Your task to perform on an android device: toggle translation in the chrome app Image 0: 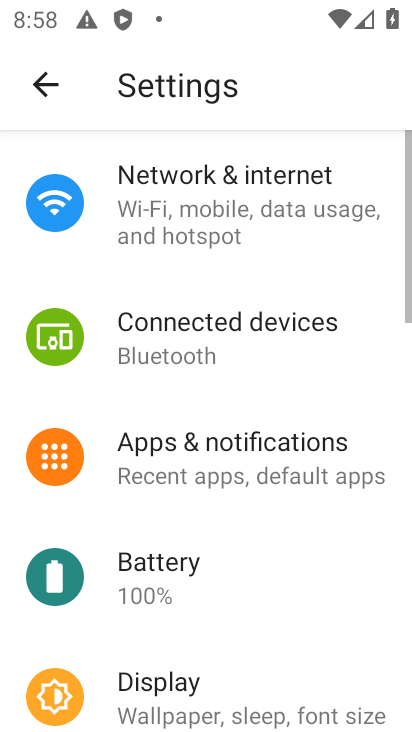
Step 0: press home button
Your task to perform on an android device: toggle translation in the chrome app Image 1: 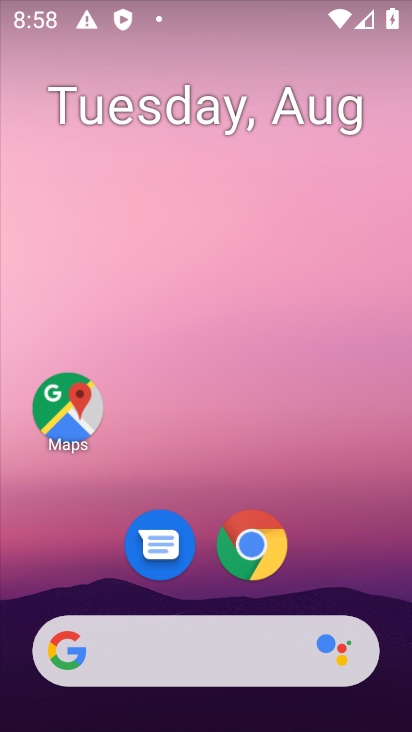
Step 1: drag from (85, 363) to (203, 92)
Your task to perform on an android device: toggle translation in the chrome app Image 2: 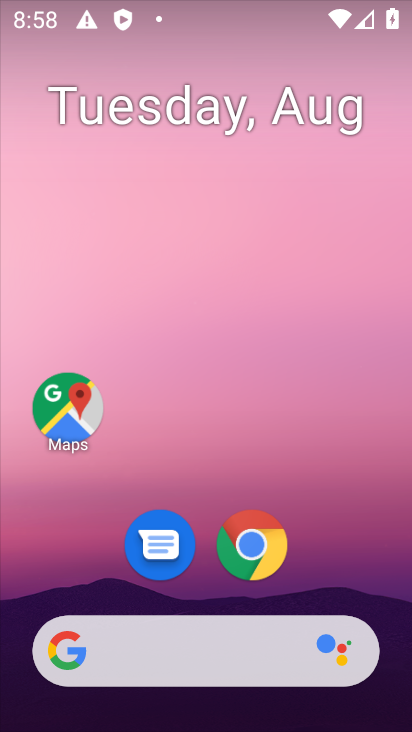
Step 2: click (236, 549)
Your task to perform on an android device: toggle translation in the chrome app Image 3: 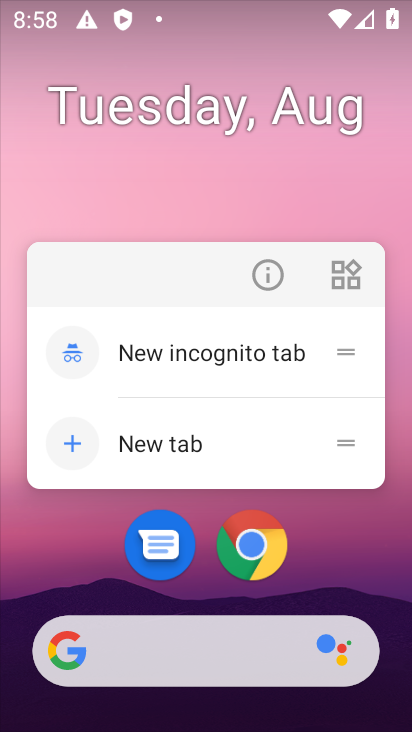
Step 3: click (238, 543)
Your task to perform on an android device: toggle translation in the chrome app Image 4: 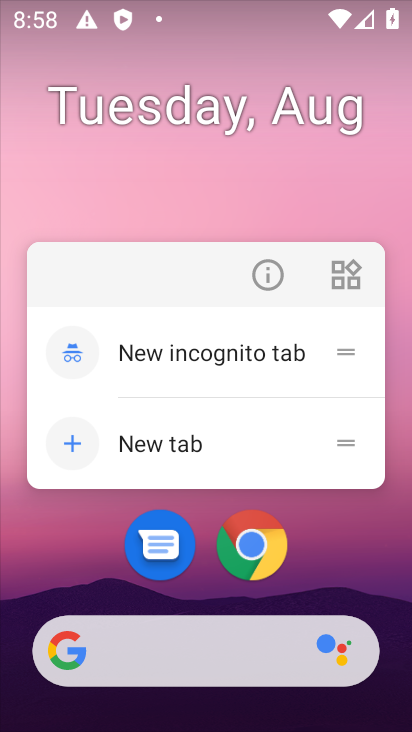
Step 4: click (247, 545)
Your task to perform on an android device: toggle translation in the chrome app Image 5: 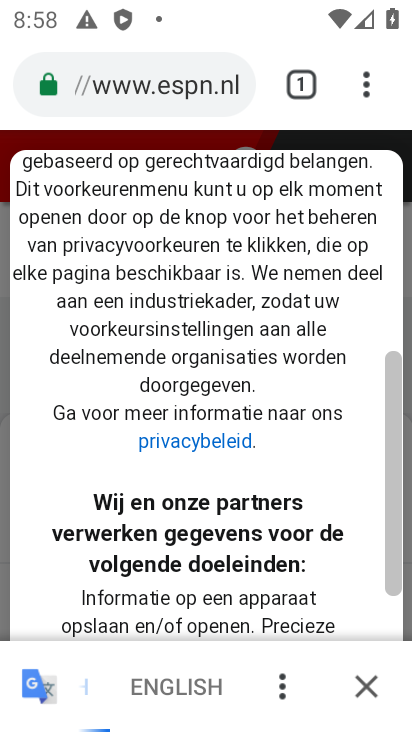
Step 5: click (367, 686)
Your task to perform on an android device: toggle translation in the chrome app Image 6: 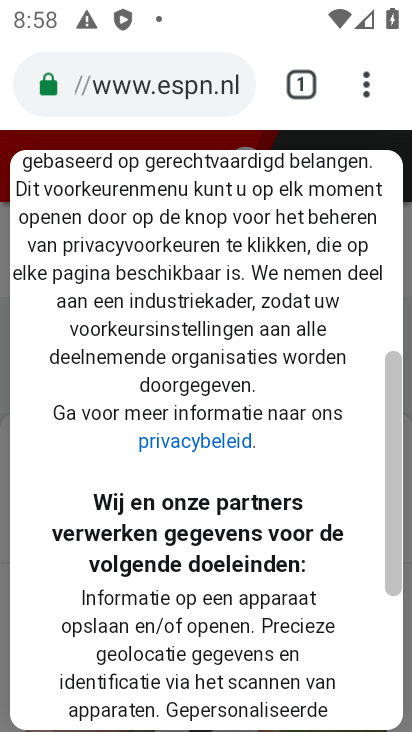
Step 6: click (366, 84)
Your task to perform on an android device: toggle translation in the chrome app Image 7: 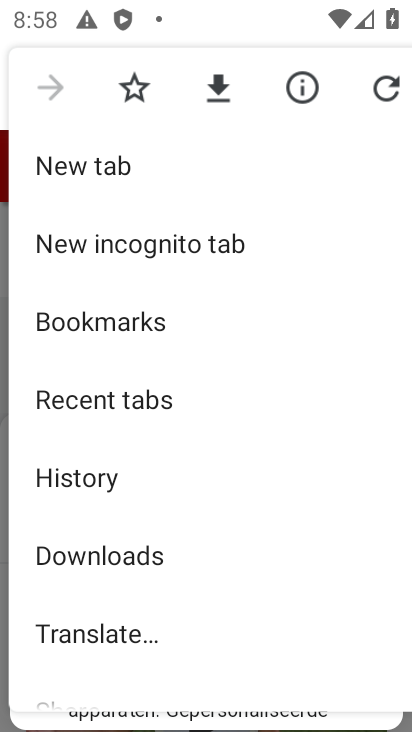
Step 7: drag from (11, 659) to (207, 215)
Your task to perform on an android device: toggle translation in the chrome app Image 8: 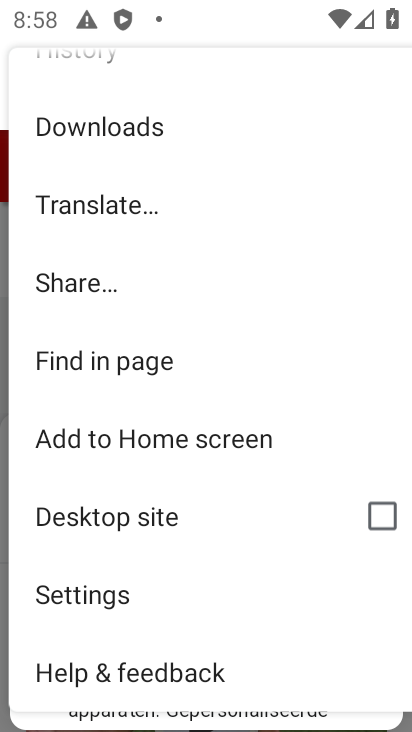
Step 8: click (108, 592)
Your task to perform on an android device: toggle translation in the chrome app Image 9: 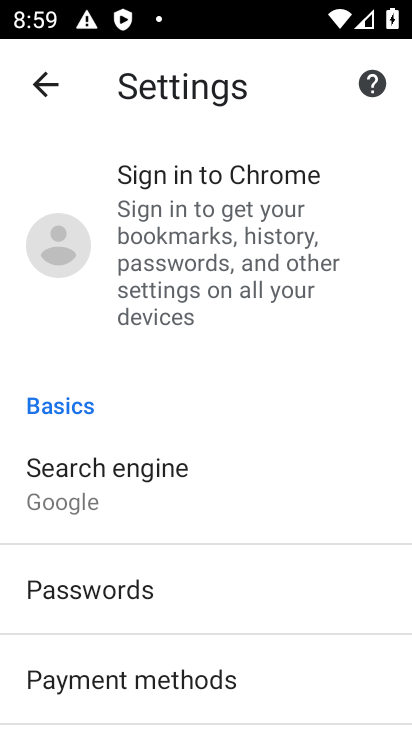
Step 9: drag from (18, 693) to (232, 159)
Your task to perform on an android device: toggle translation in the chrome app Image 10: 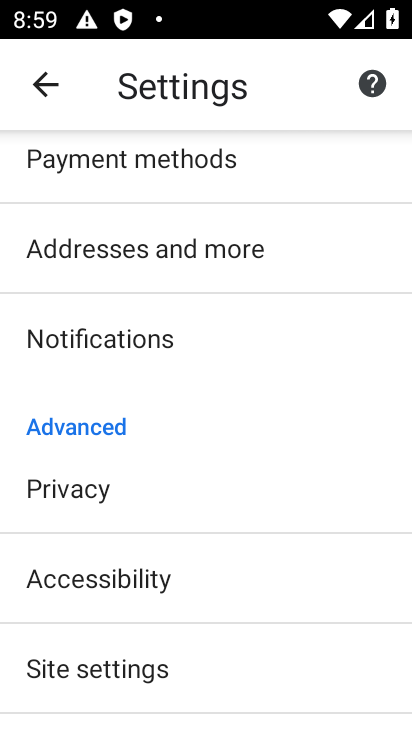
Step 10: drag from (13, 592) to (174, 218)
Your task to perform on an android device: toggle translation in the chrome app Image 11: 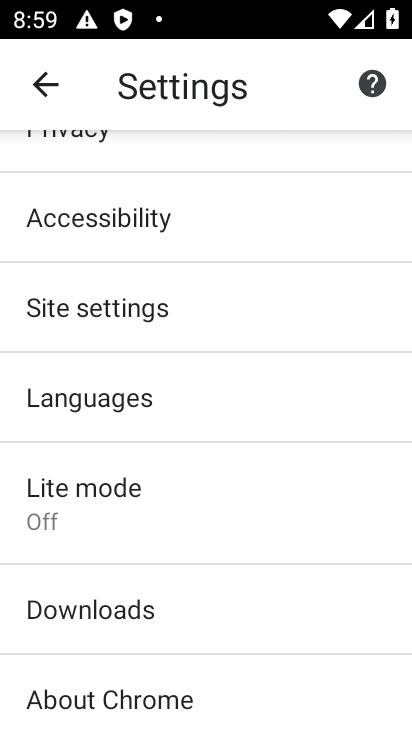
Step 11: drag from (143, 170) to (107, 716)
Your task to perform on an android device: toggle translation in the chrome app Image 12: 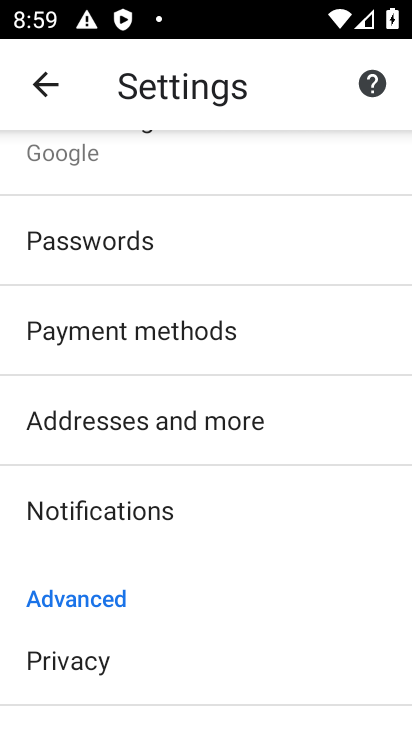
Step 12: drag from (215, 179) to (231, 622)
Your task to perform on an android device: toggle translation in the chrome app Image 13: 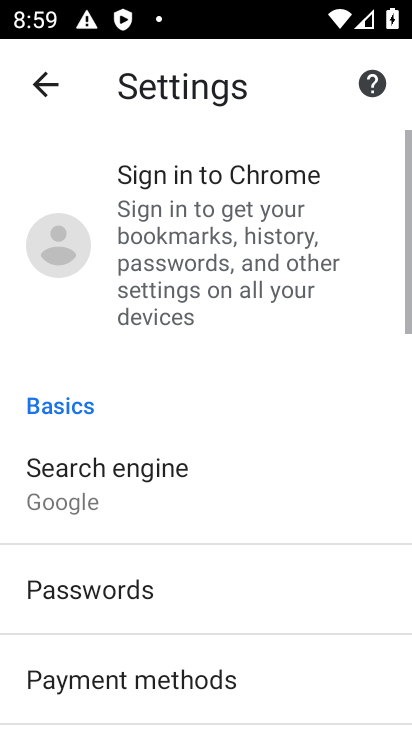
Step 13: drag from (2, 610) to (266, 107)
Your task to perform on an android device: toggle translation in the chrome app Image 14: 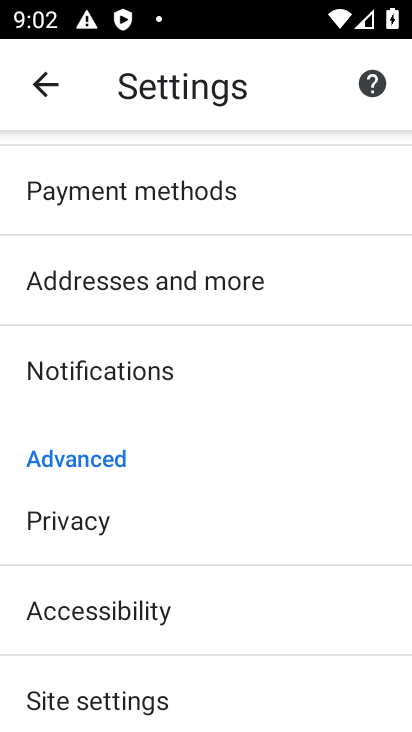
Step 14: press home button
Your task to perform on an android device: toggle translation in the chrome app Image 15: 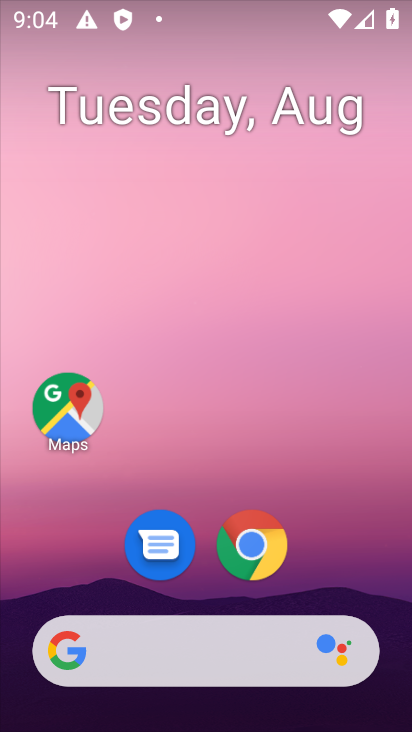
Step 15: click (259, 539)
Your task to perform on an android device: toggle translation in the chrome app Image 16: 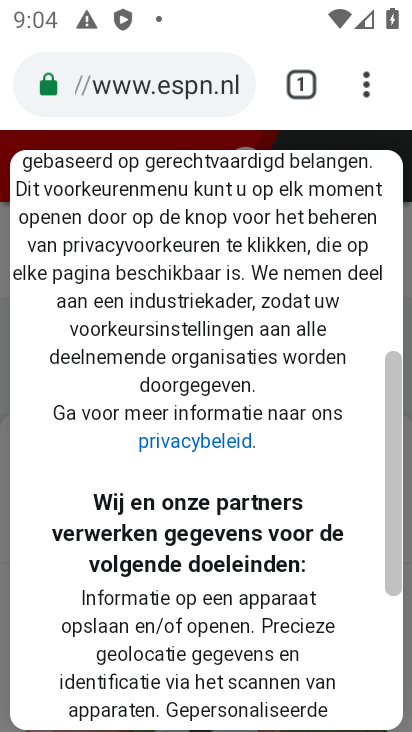
Step 16: click (312, 80)
Your task to perform on an android device: toggle translation in the chrome app Image 17: 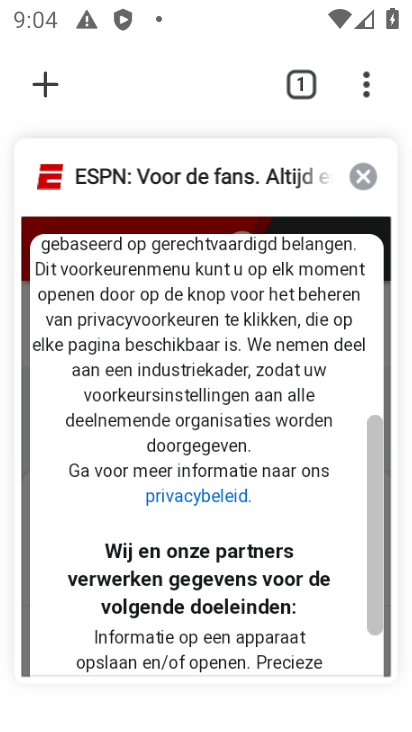
Step 17: click (361, 176)
Your task to perform on an android device: toggle translation in the chrome app Image 18: 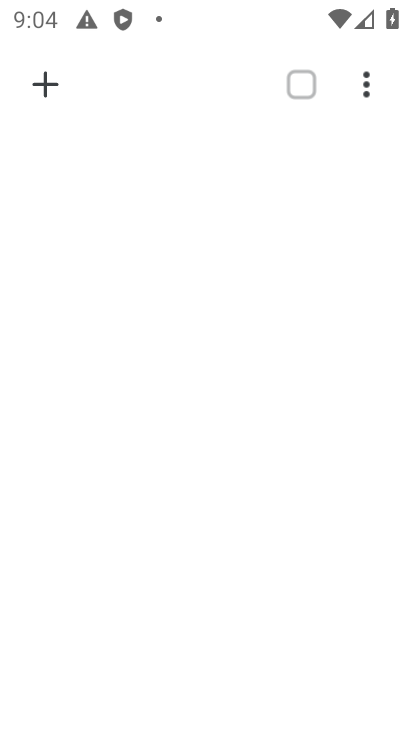
Step 18: click (45, 88)
Your task to perform on an android device: toggle translation in the chrome app Image 19: 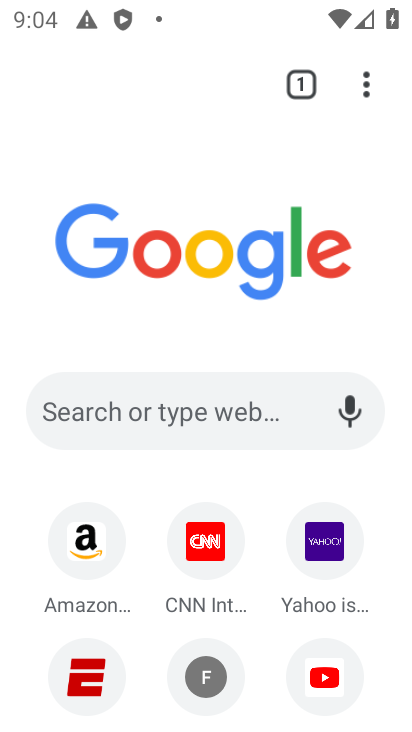
Step 19: click (365, 94)
Your task to perform on an android device: toggle translation in the chrome app Image 20: 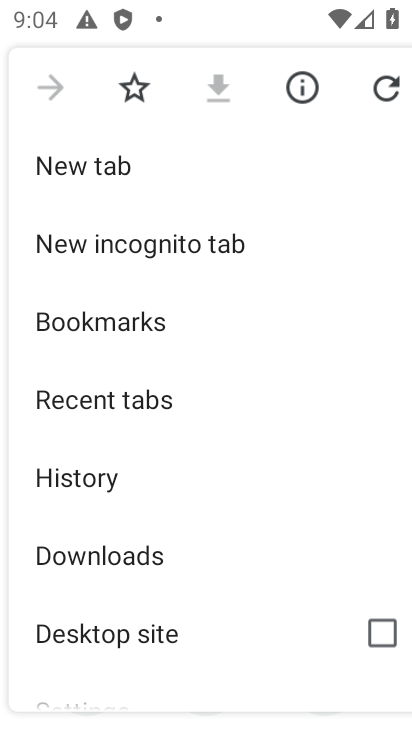
Step 20: drag from (31, 428) to (197, 82)
Your task to perform on an android device: toggle translation in the chrome app Image 21: 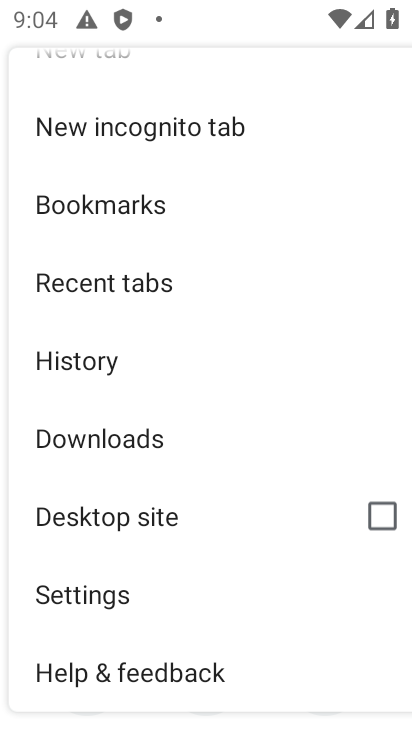
Step 21: click (127, 600)
Your task to perform on an android device: toggle translation in the chrome app Image 22: 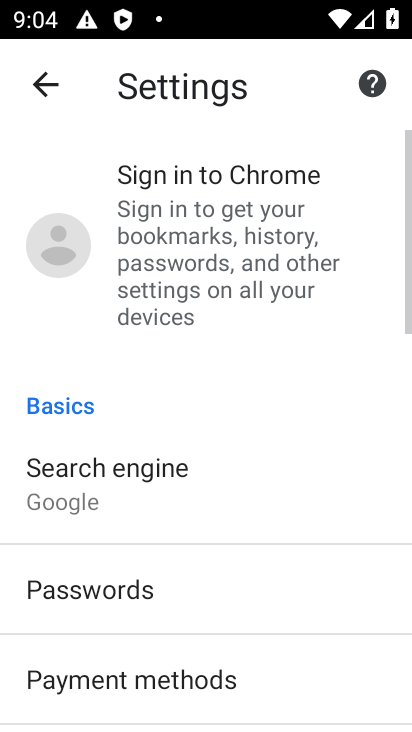
Step 22: drag from (27, 518) to (240, 91)
Your task to perform on an android device: toggle translation in the chrome app Image 23: 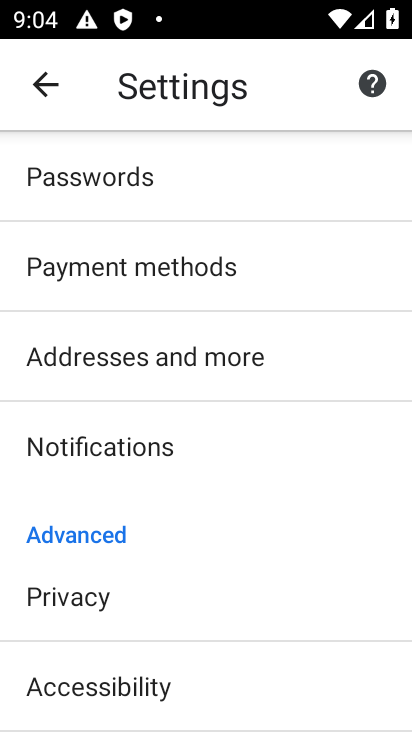
Step 23: drag from (26, 618) to (327, 155)
Your task to perform on an android device: toggle translation in the chrome app Image 24: 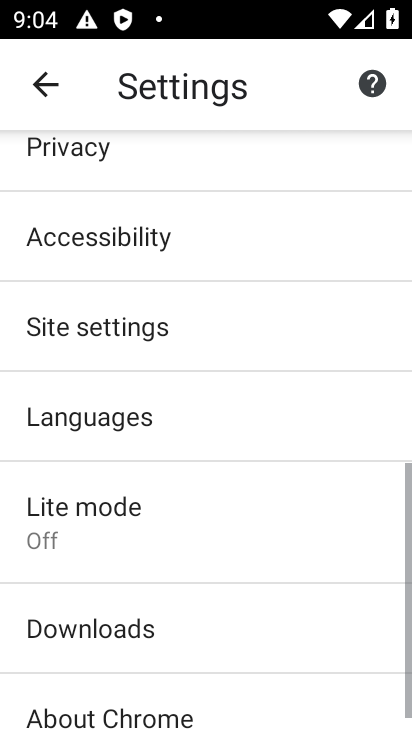
Step 24: click (209, 403)
Your task to perform on an android device: toggle translation in the chrome app Image 25: 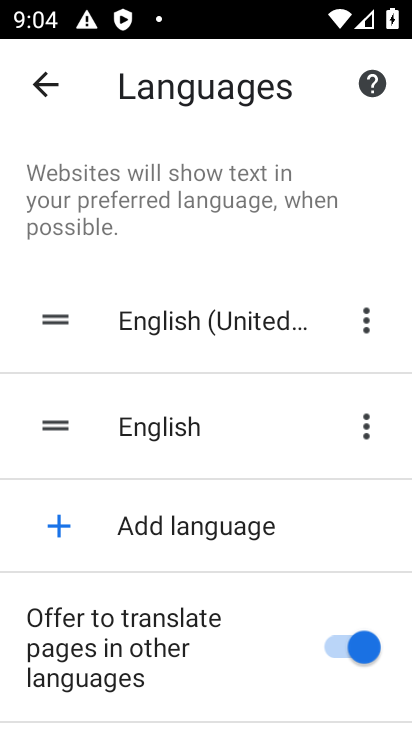
Step 25: click (360, 644)
Your task to perform on an android device: toggle translation in the chrome app Image 26: 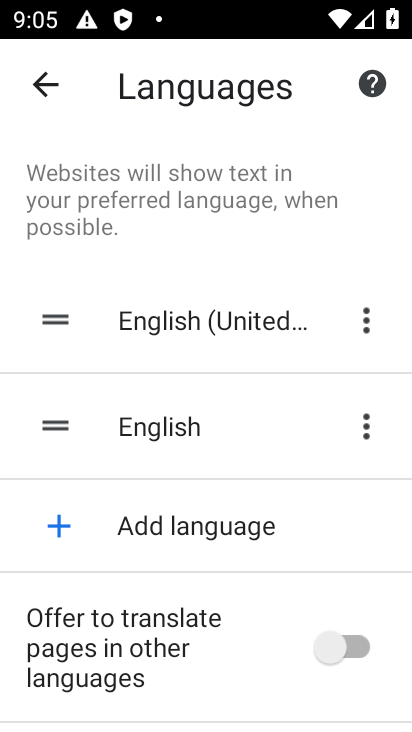
Step 26: task complete